Your task to perform on an android device: open app "Grab" Image 0: 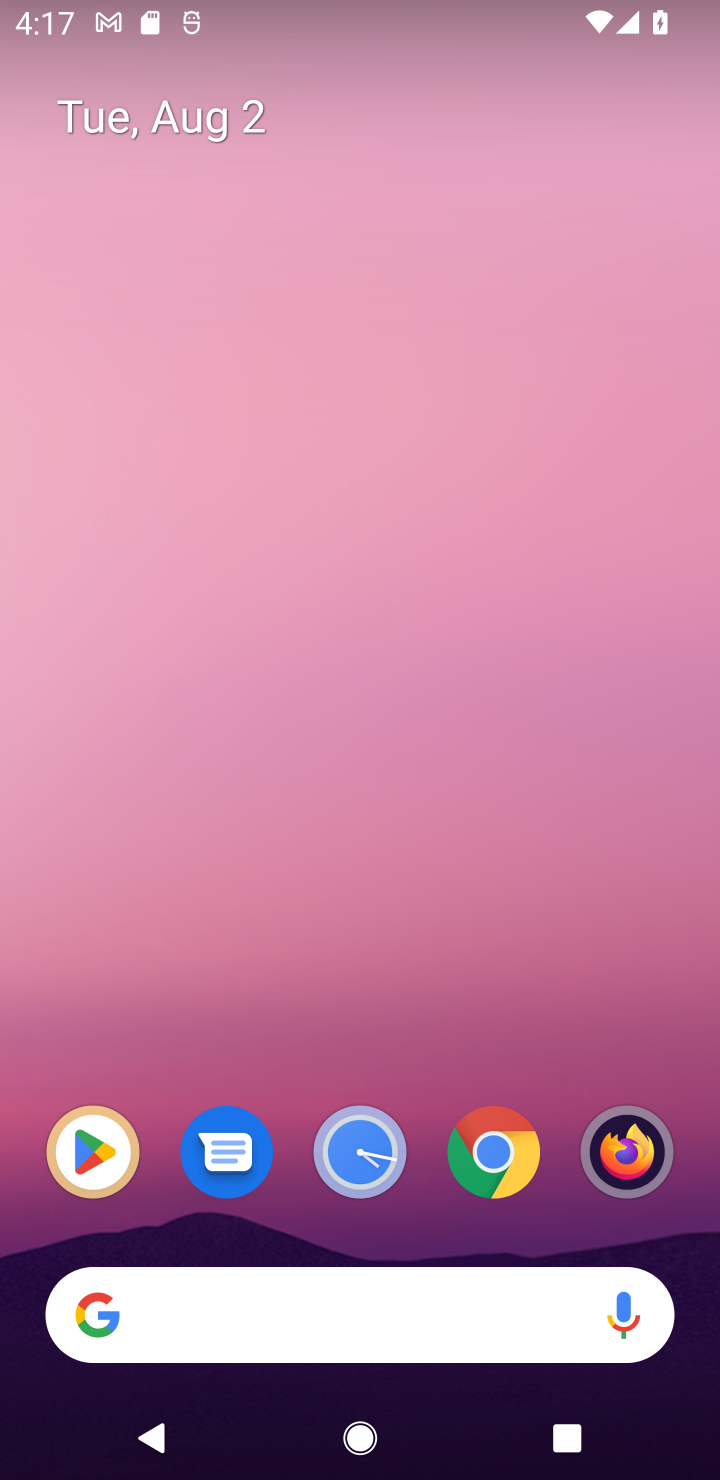
Step 0: drag from (588, 838) to (620, 36)
Your task to perform on an android device: open app "Grab" Image 1: 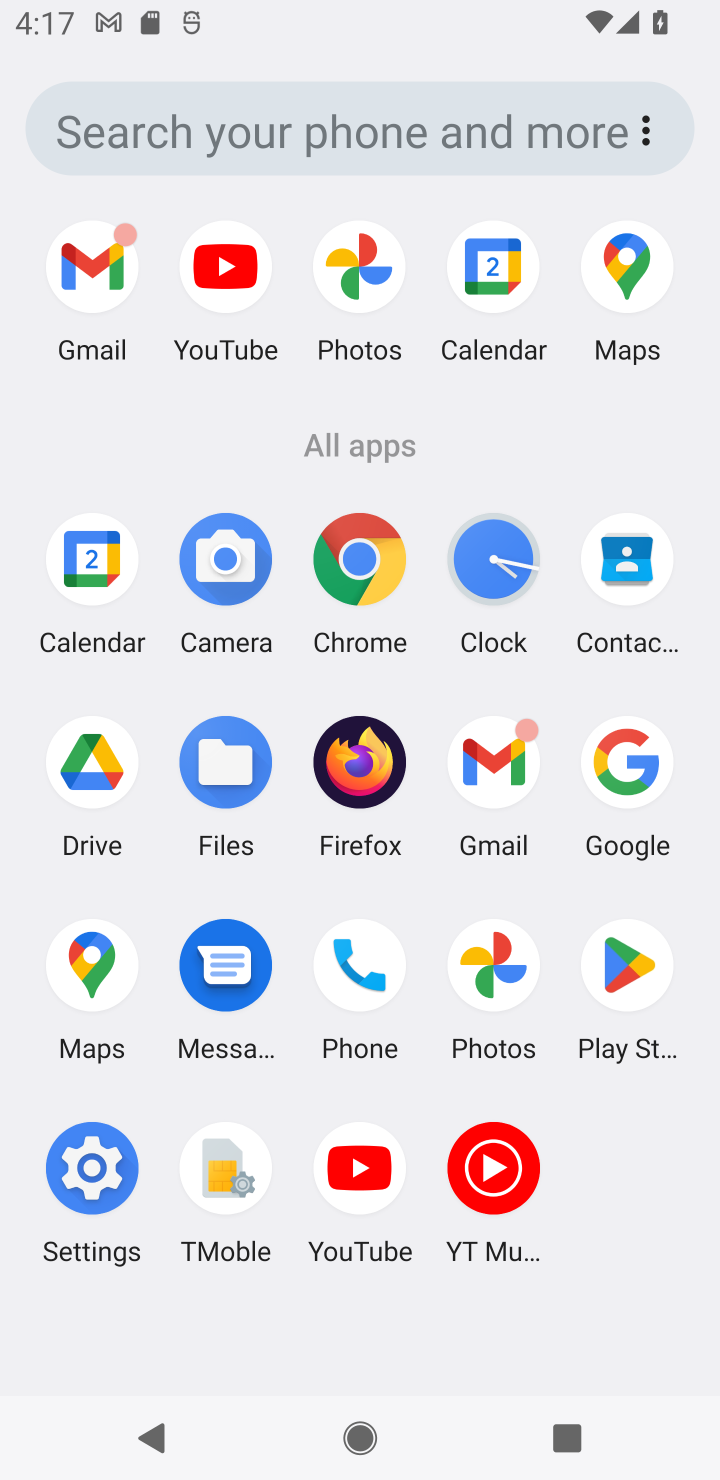
Step 1: click (623, 961)
Your task to perform on an android device: open app "Grab" Image 2: 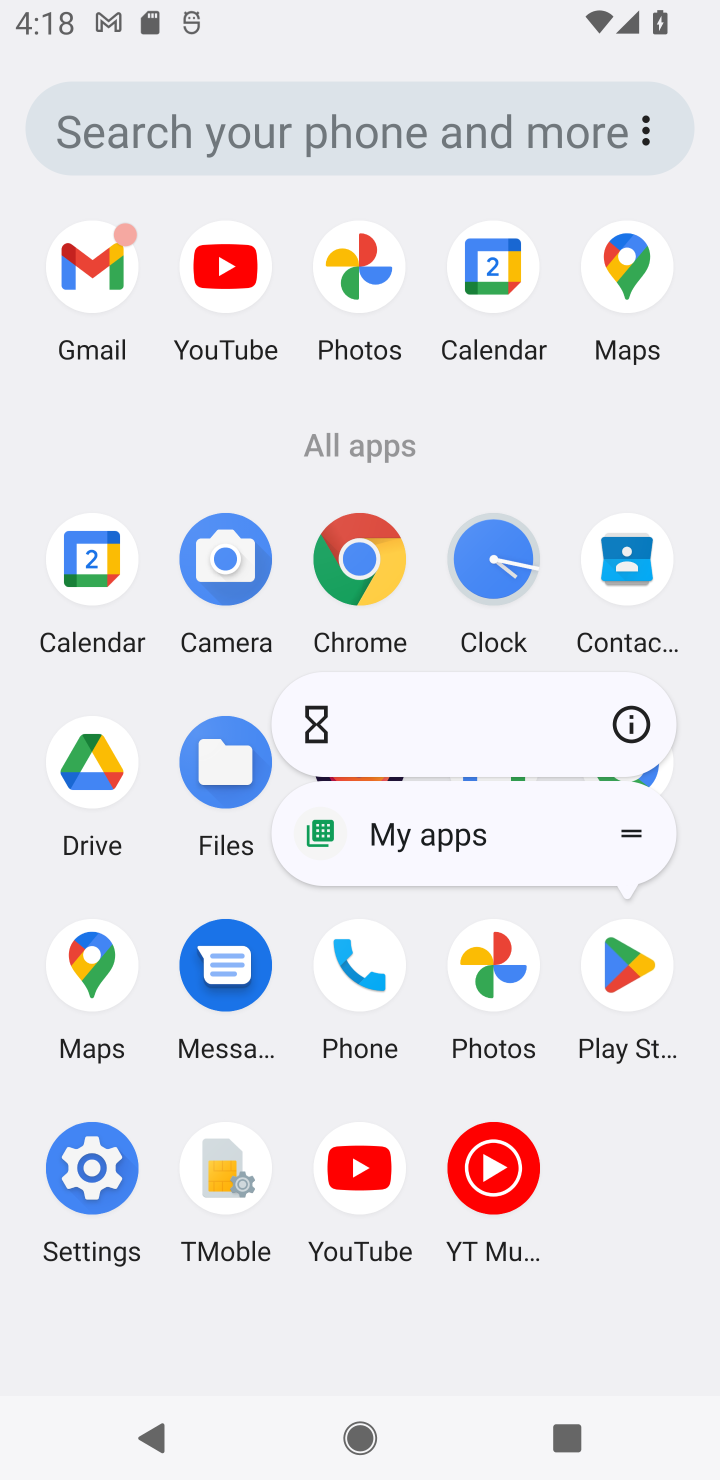
Step 2: click (643, 970)
Your task to perform on an android device: open app "Grab" Image 3: 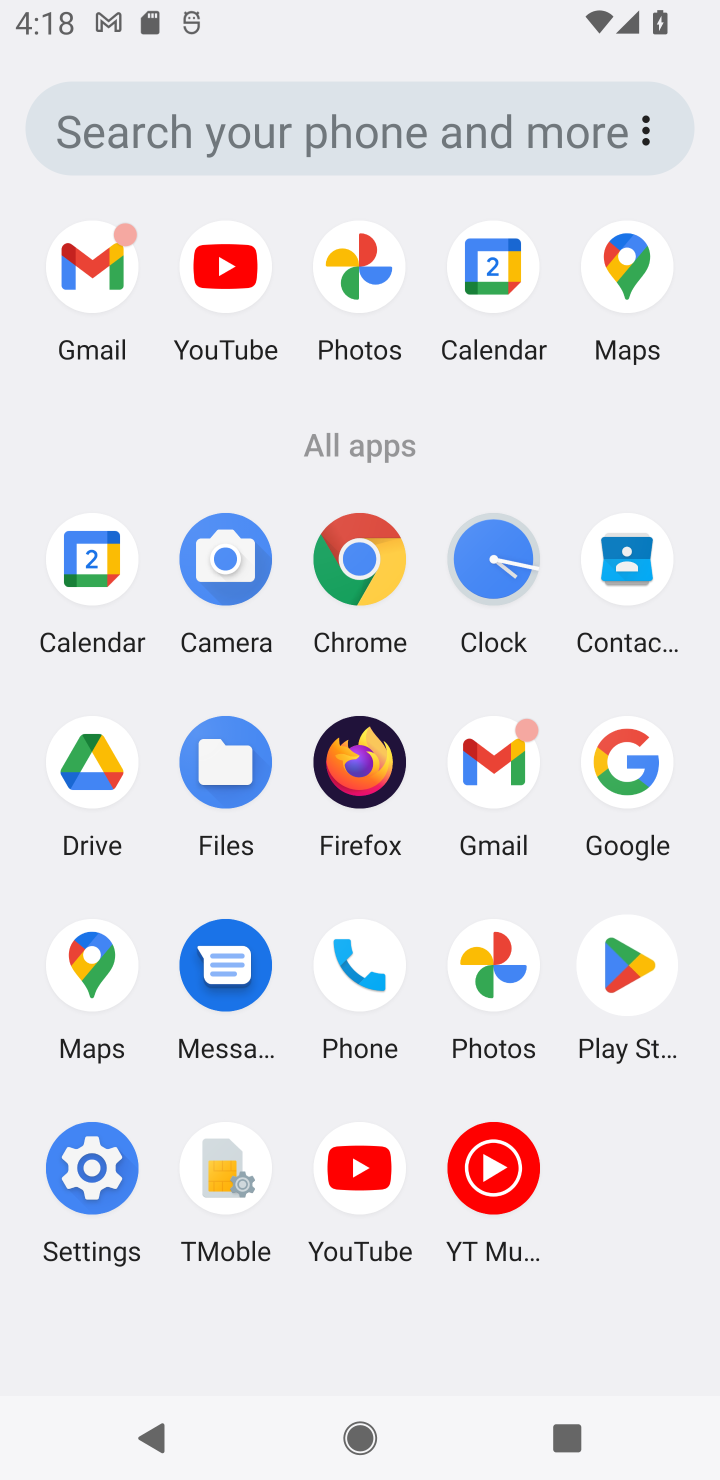
Step 3: click (643, 970)
Your task to perform on an android device: open app "Grab" Image 4: 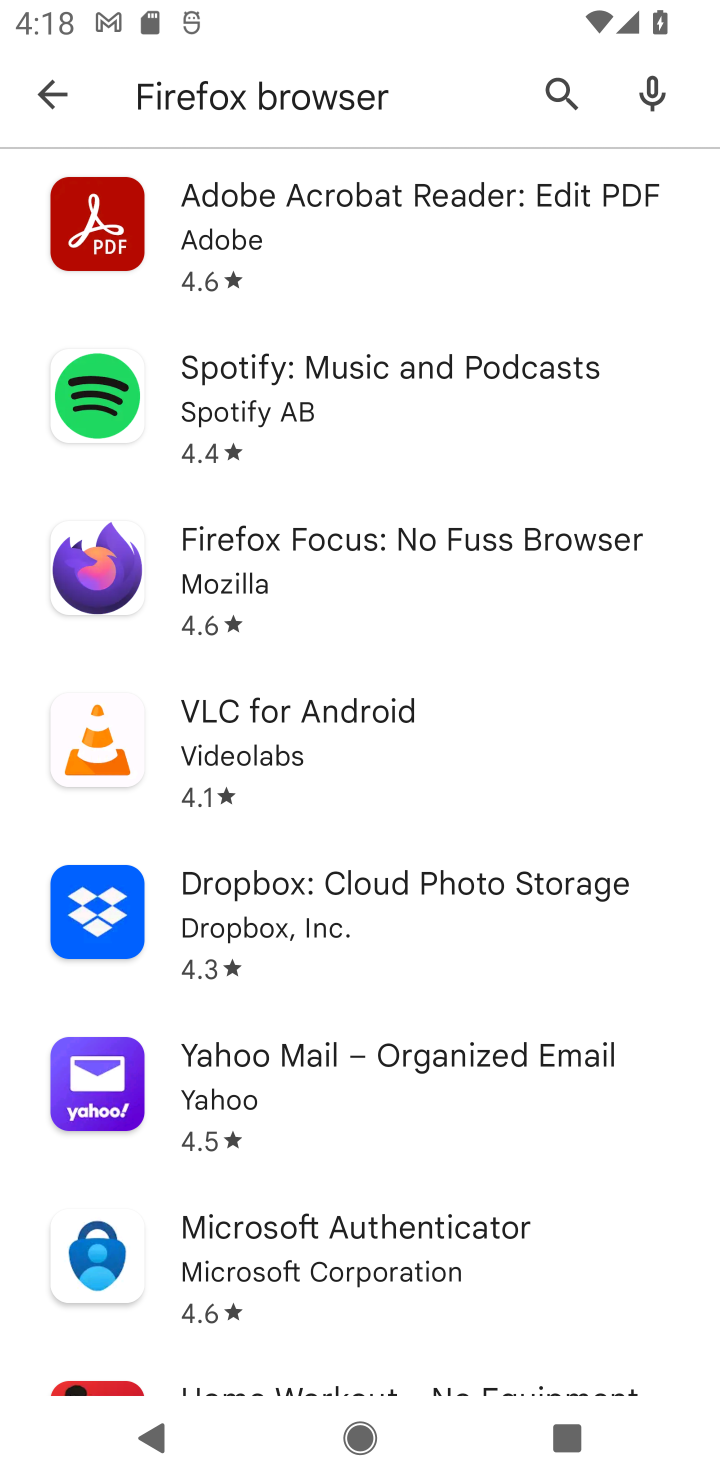
Step 4: click (375, 96)
Your task to perform on an android device: open app "Grab" Image 5: 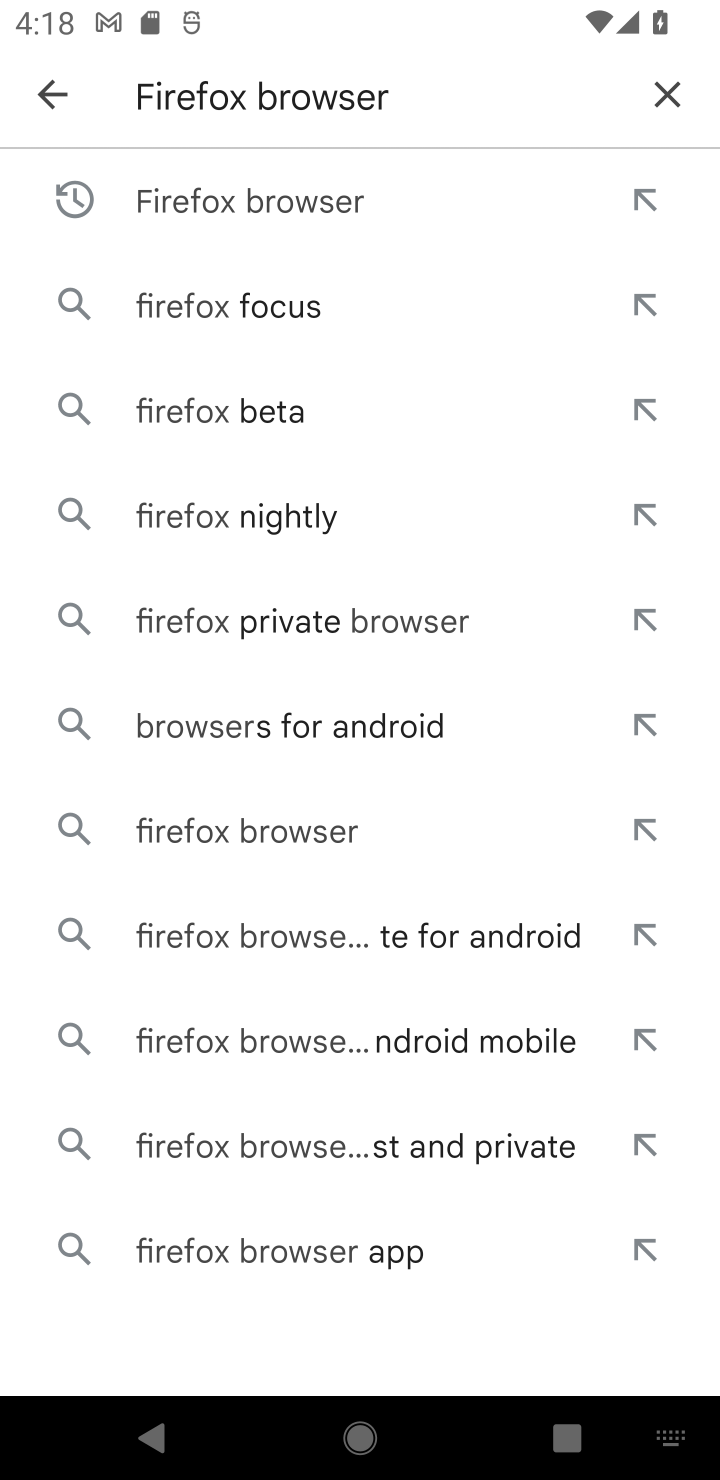
Step 5: click (649, 100)
Your task to perform on an android device: open app "Grab" Image 6: 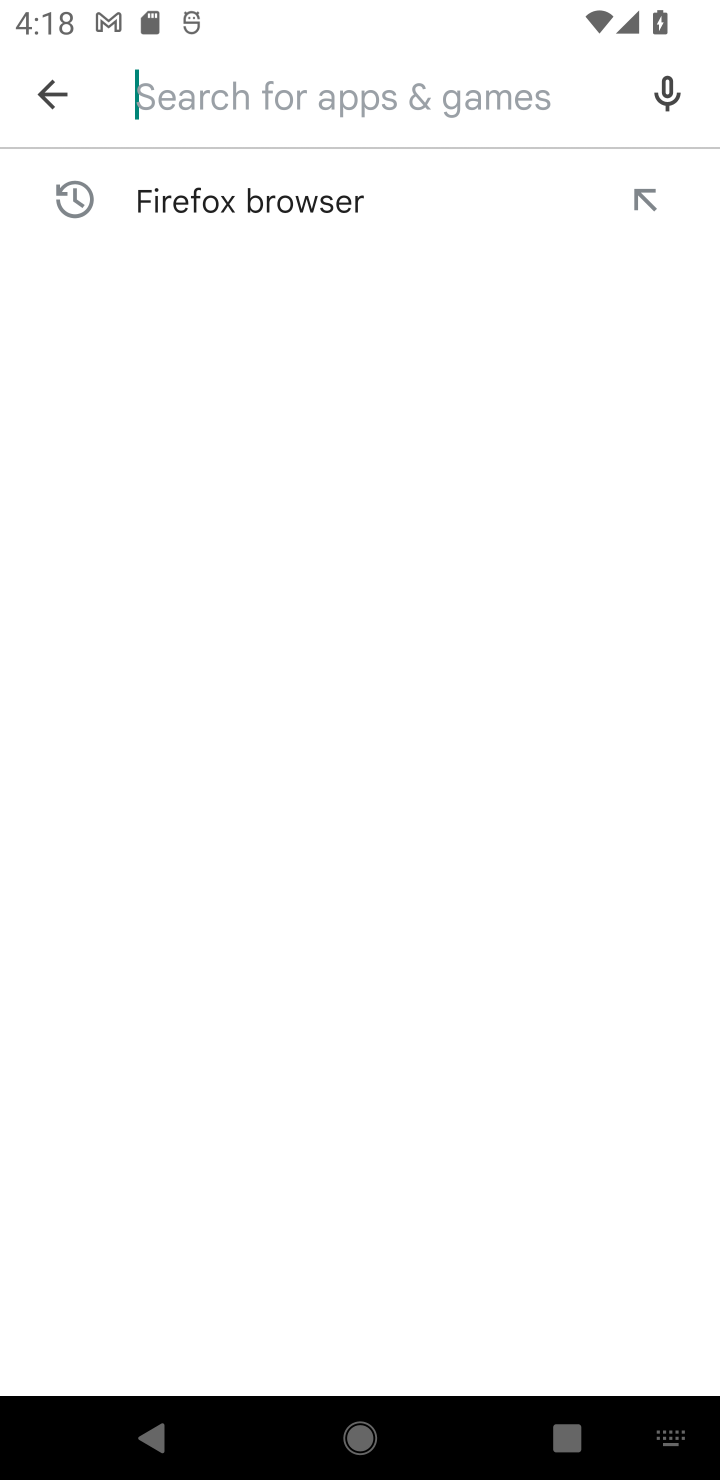
Step 6: type "Grab"
Your task to perform on an android device: open app "Grab" Image 7: 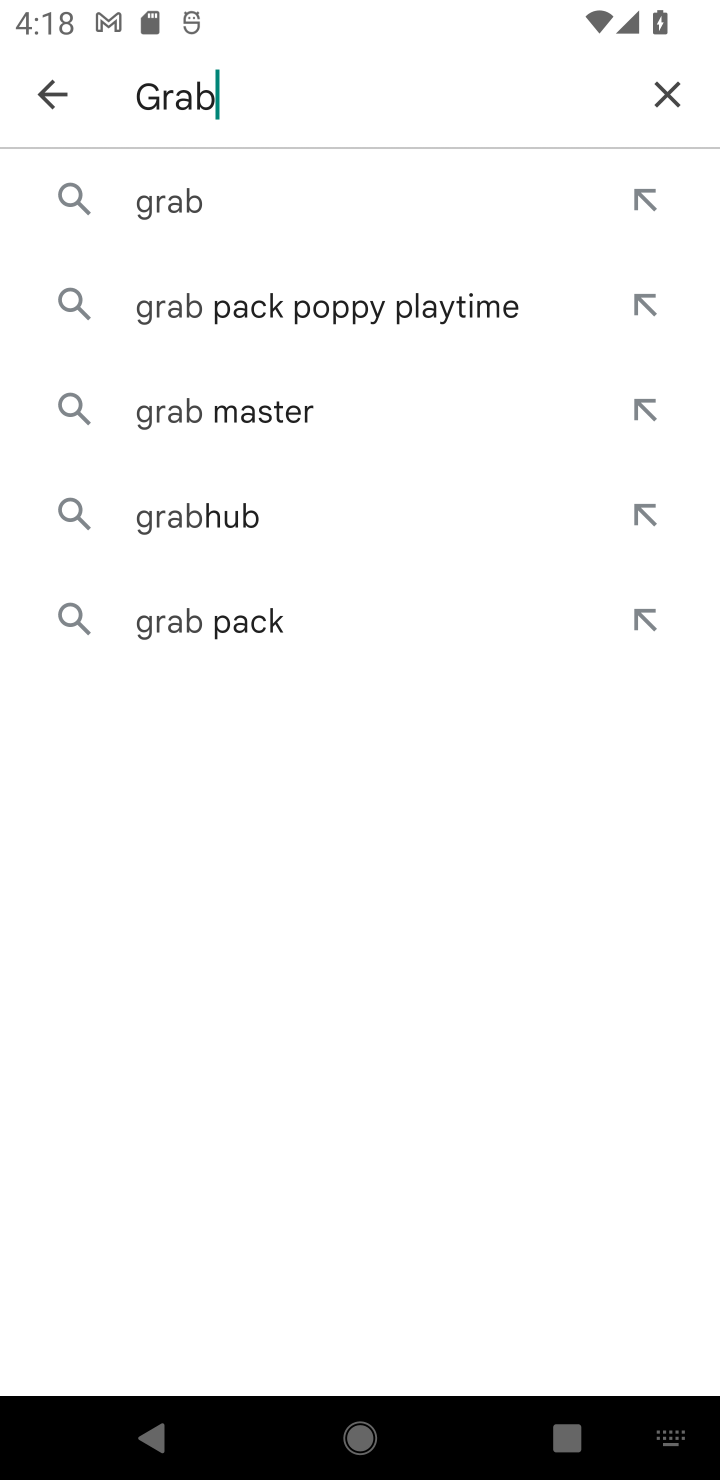
Step 7: press enter
Your task to perform on an android device: open app "Grab" Image 8: 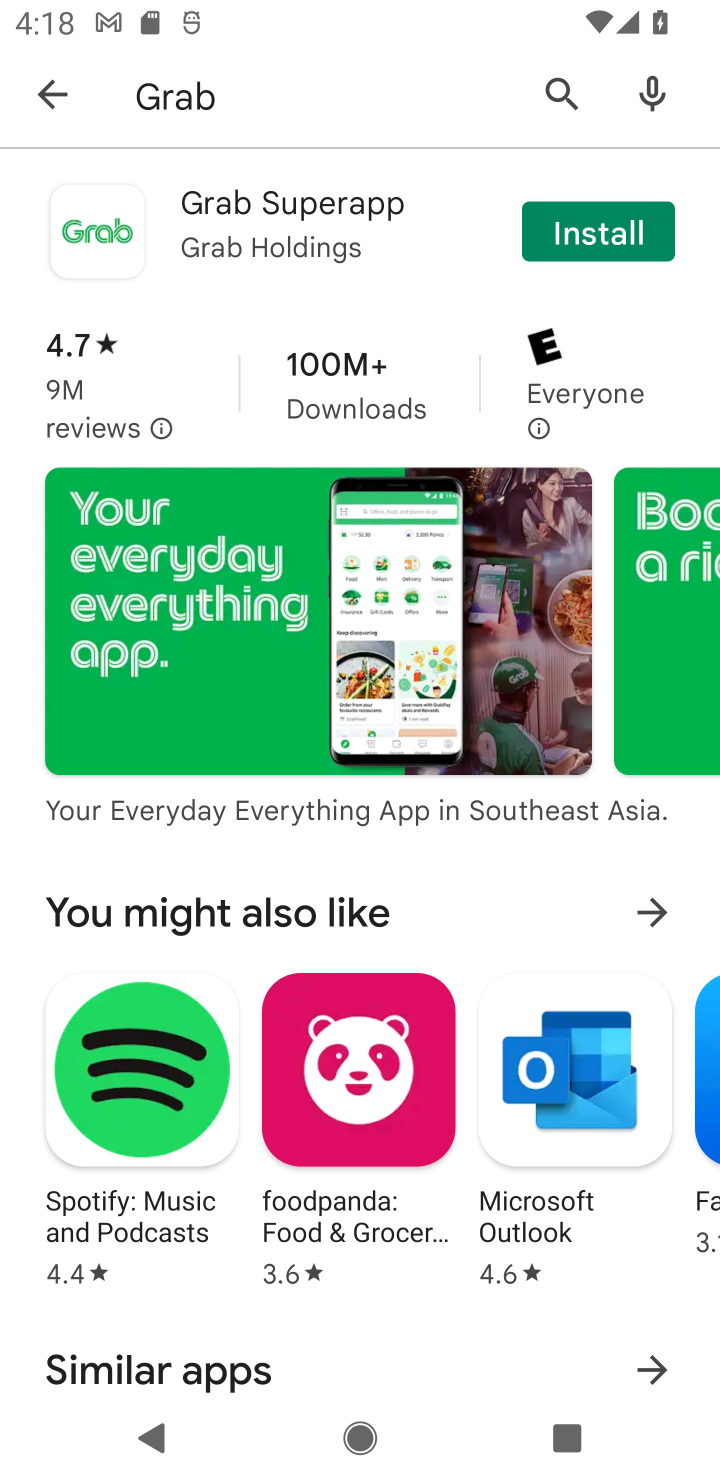
Step 8: task complete